Your task to perform on an android device: turn smart compose on in the gmail app Image 0: 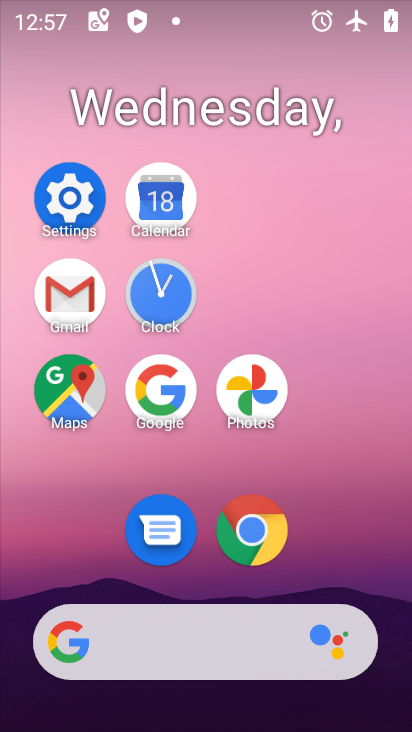
Step 0: click (47, 299)
Your task to perform on an android device: turn smart compose on in the gmail app Image 1: 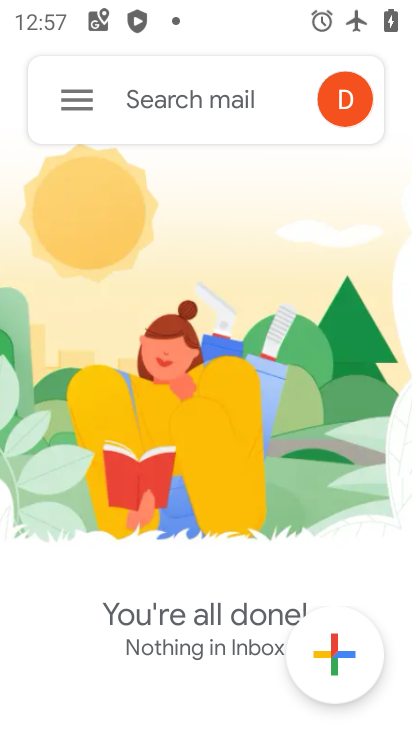
Step 1: click (90, 102)
Your task to perform on an android device: turn smart compose on in the gmail app Image 2: 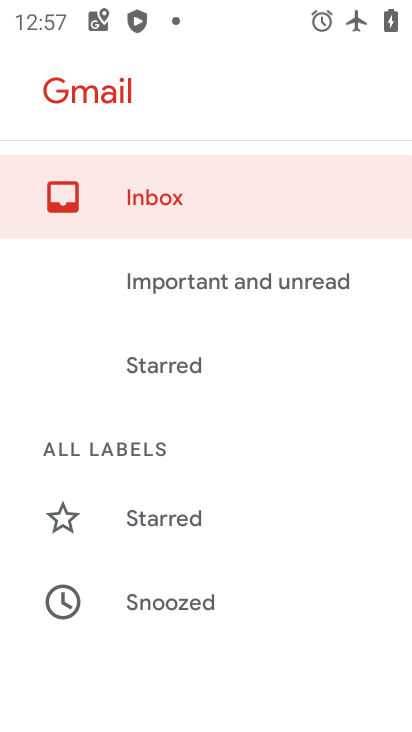
Step 2: drag from (171, 517) to (242, 130)
Your task to perform on an android device: turn smart compose on in the gmail app Image 3: 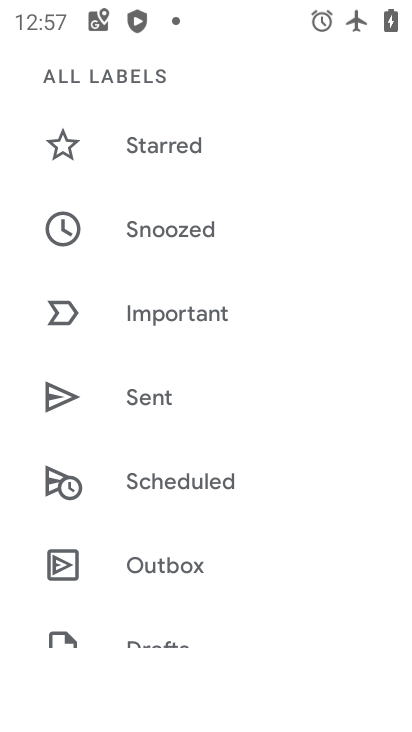
Step 3: drag from (214, 559) to (254, 185)
Your task to perform on an android device: turn smart compose on in the gmail app Image 4: 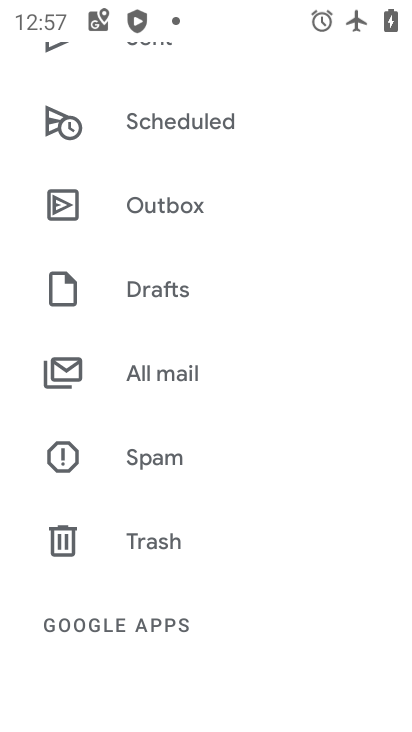
Step 4: drag from (148, 595) to (226, 241)
Your task to perform on an android device: turn smart compose on in the gmail app Image 5: 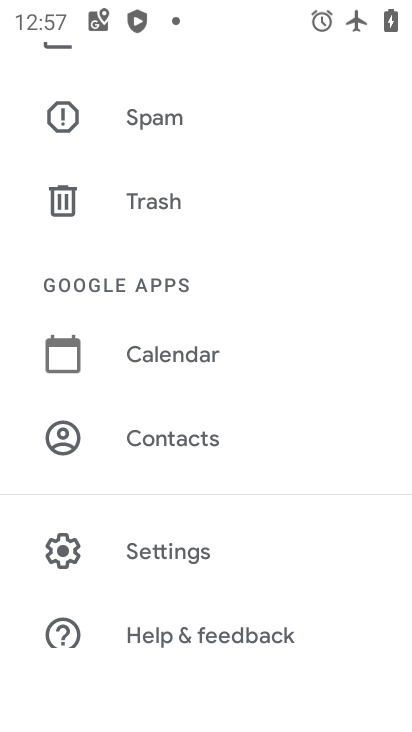
Step 5: click (182, 552)
Your task to perform on an android device: turn smart compose on in the gmail app Image 6: 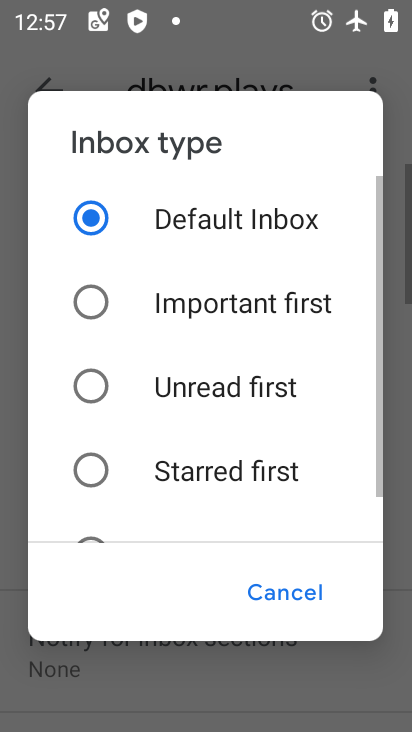
Step 6: click (263, 580)
Your task to perform on an android device: turn smart compose on in the gmail app Image 7: 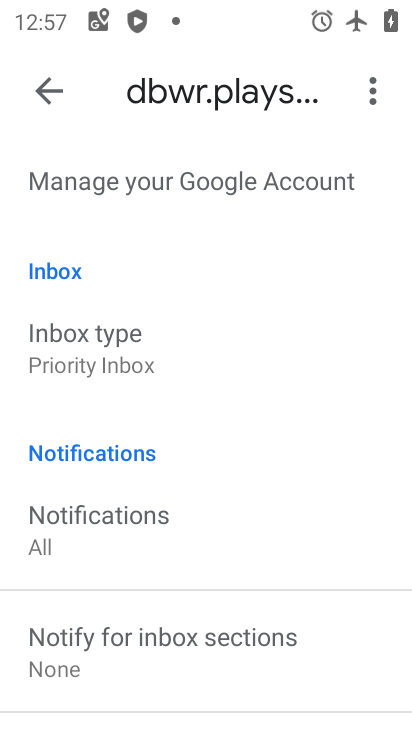
Step 7: task complete